Your task to perform on an android device: What's the weather? Image 0: 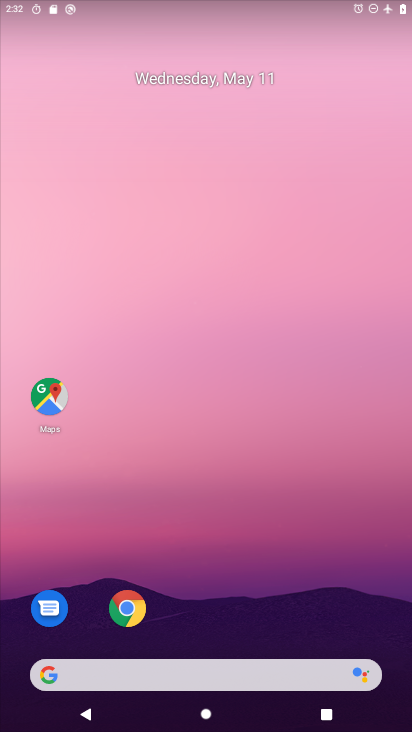
Step 0: drag from (210, 593) to (257, 175)
Your task to perform on an android device: What's the weather? Image 1: 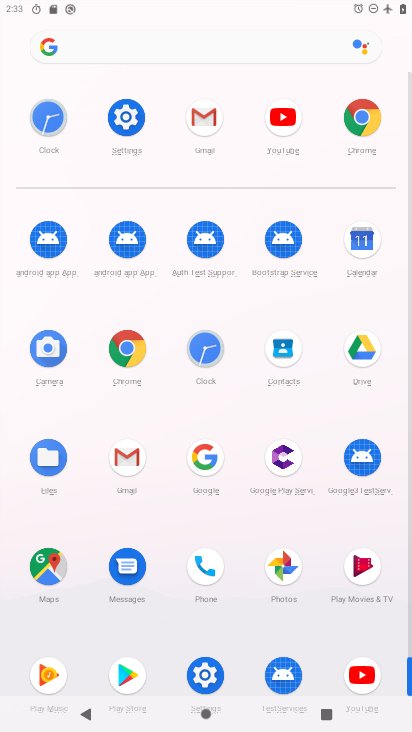
Step 1: click (206, 468)
Your task to perform on an android device: What's the weather? Image 2: 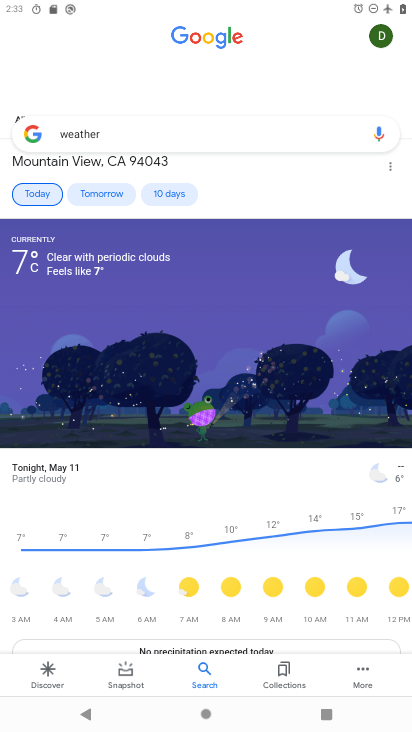
Step 2: task complete